Your task to perform on an android device: Open Chrome and go to the settings page Image 0: 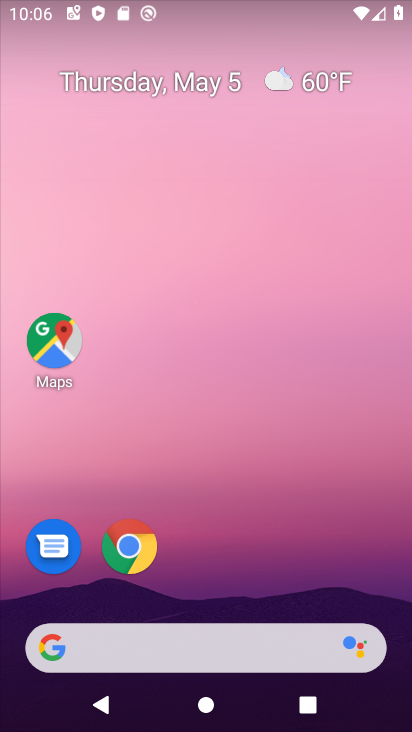
Step 0: click (132, 555)
Your task to perform on an android device: Open Chrome and go to the settings page Image 1: 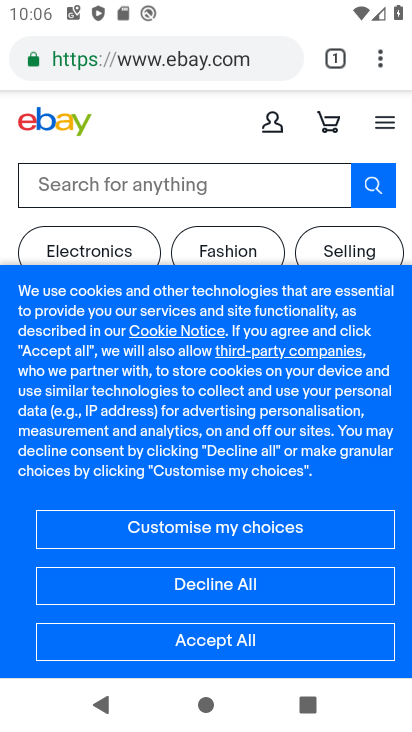
Step 1: click (375, 65)
Your task to perform on an android device: Open Chrome and go to the settings page Image 2: 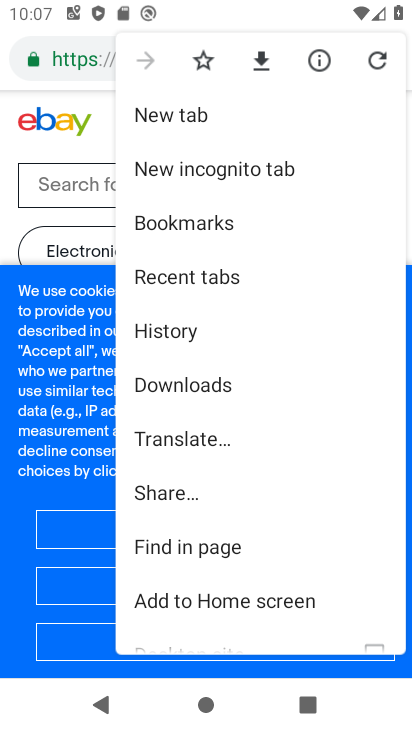
Step 2: drag from (259, 620) to (285, 419)
Your task to perform on an android device: Open Chrome and go to the settings page Image 3: 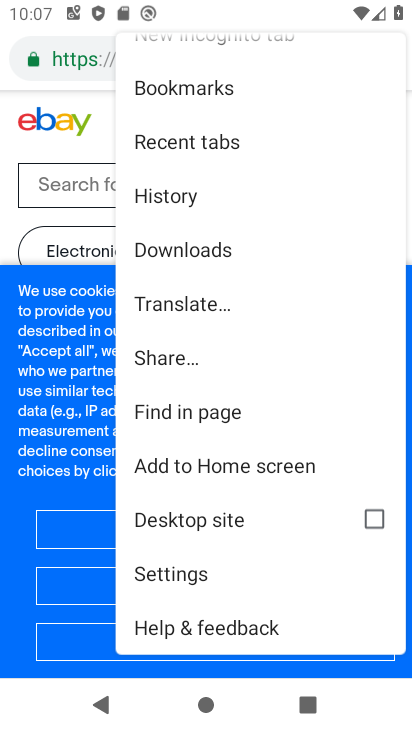
Step 3: click (199, 580)
Your task to perform on an android device: Open Chrome and go to the settings page Image 4: 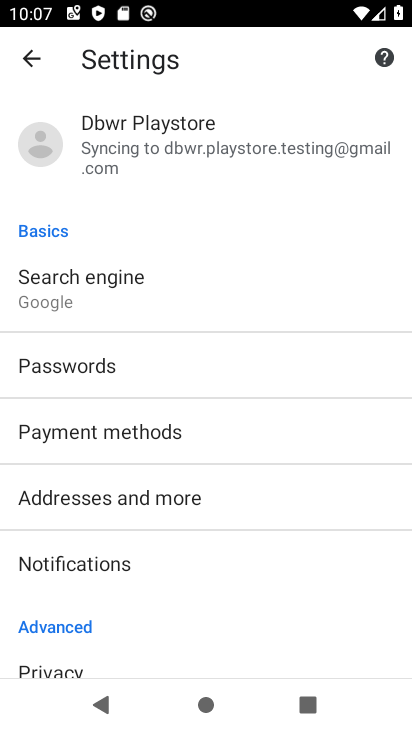
Step 4: task complete